Your task to perform on an android device: delete location history Image 0: 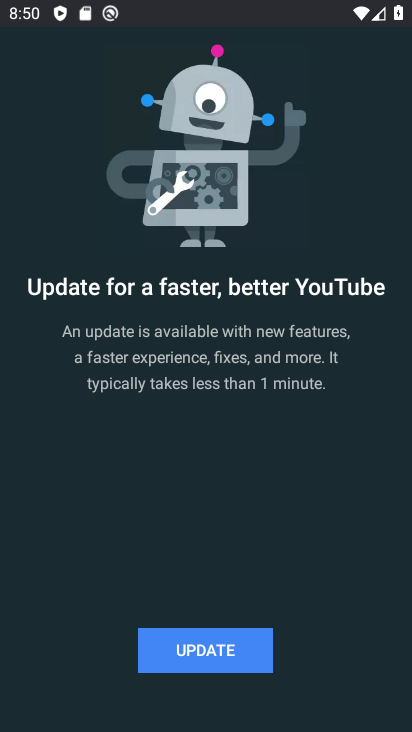
Step 0: press home button
Your task to perform on an android device: delete location history Image 1: 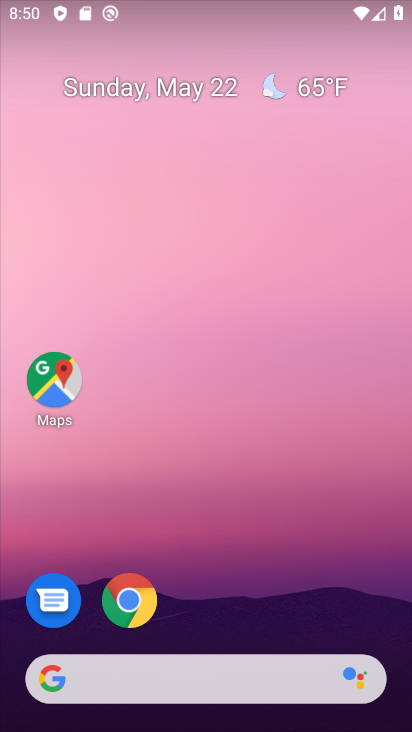
Step 1: drag from (217, 617) to (288, 222)
Your task to perform on an android device: delete location history Image 2: 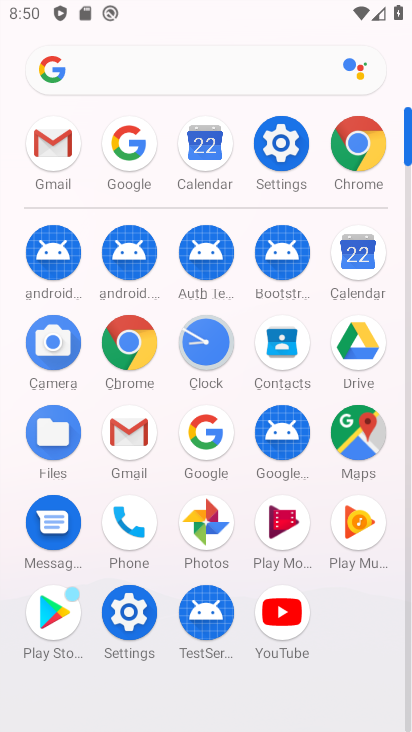
Step 2: click (278, 158)
Your task to perform on an android device: delete location history Image 3: 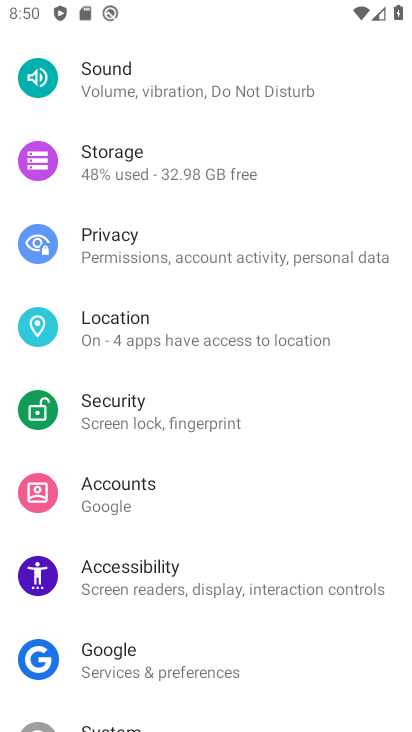
Step 3: click (152, 347)
Your task to perform on an android device: delete location history Image 4: 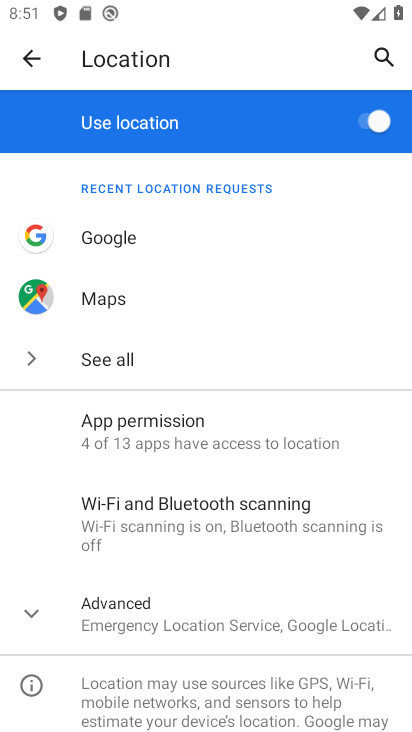
Step 4: drag from (148, 550) to (163, 319)
Your task to perform on an android device: delete location history Image 5: 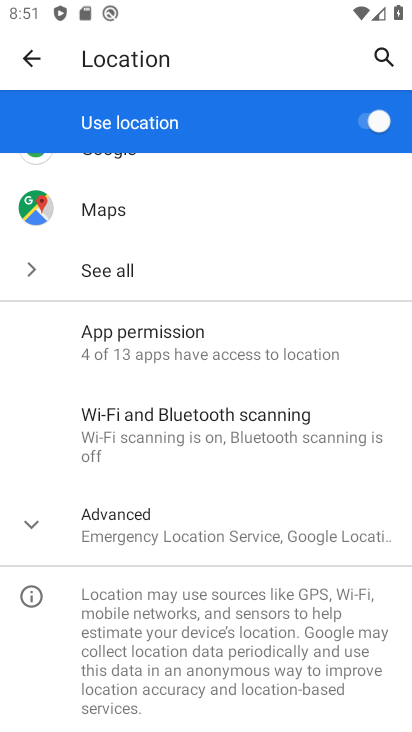
Step 5: click (125, 515)
Your task to perform on an android device: delete location history Image 6: 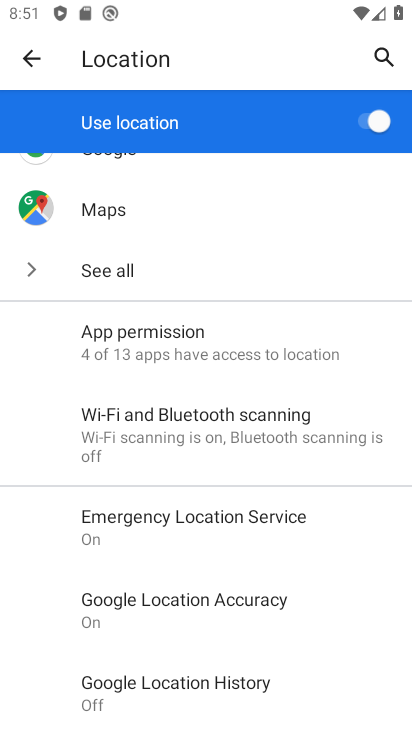
Step 6: click (206, 706)
Your task to perform on an android device: delete location history Image 7: 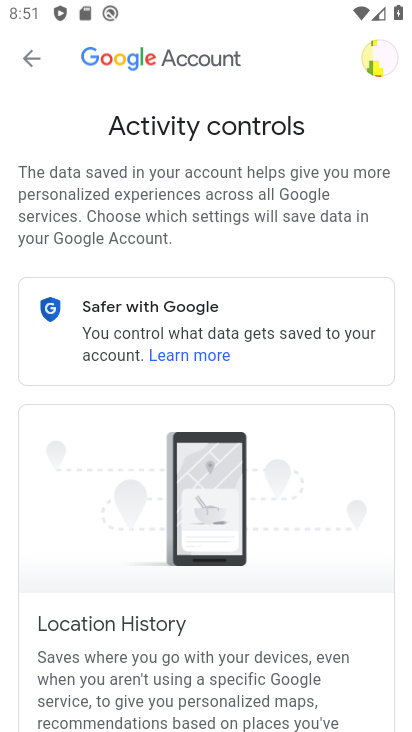
Step 7: drag from (226, 672) to (199, 396)
Your task to perform on an android device: delete location history Image 8: 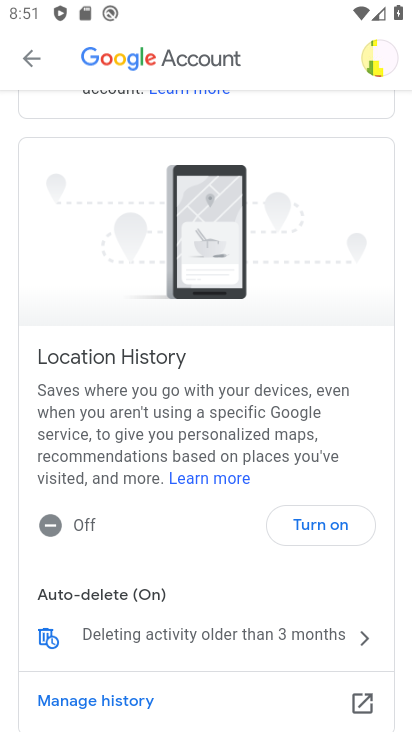
Step 8: drag from (278, 679) to (280, 441)
Your task to perform on an android device: delete location history Image 9: 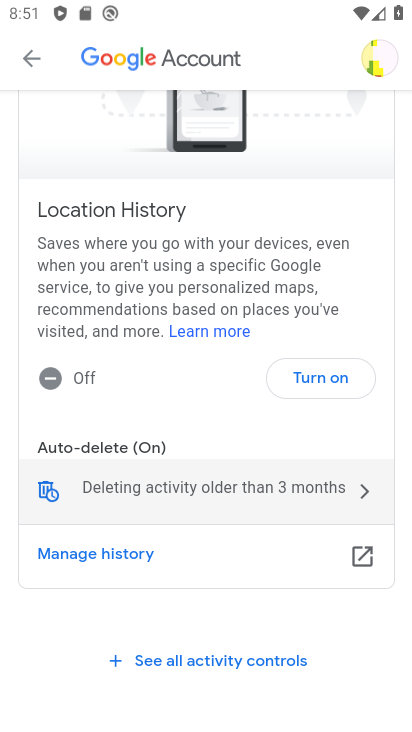
Step 9: click (126, 561)
Your task to perform on an android device: delete location history Image 10: 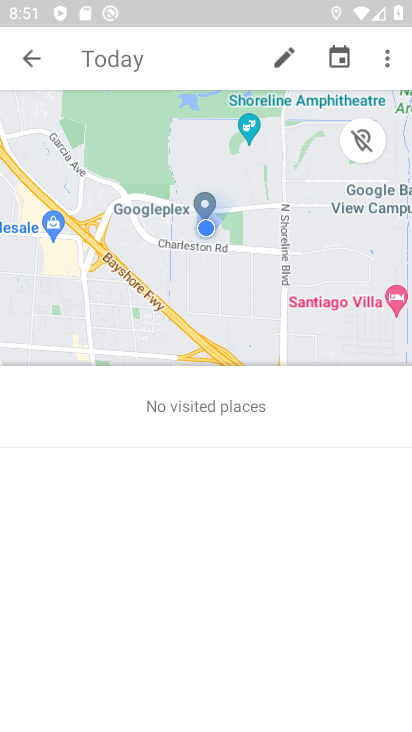
Step 10: click (384, 56)
Your task to perform on an android device: delete location history Image 11: 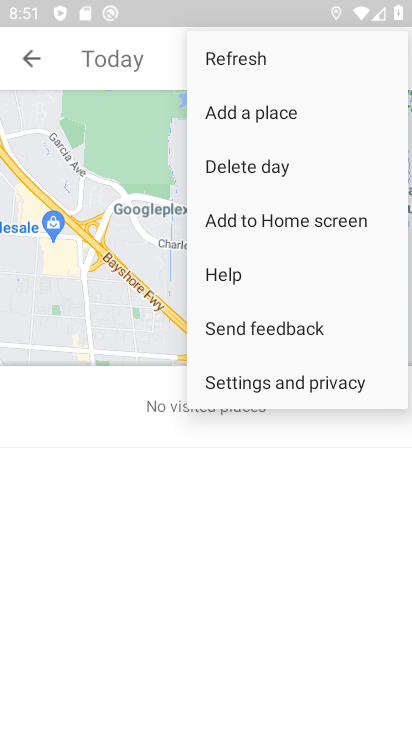
Step 11: click (320, 377)
Your task to perform on an android device: delete location history Image 12: 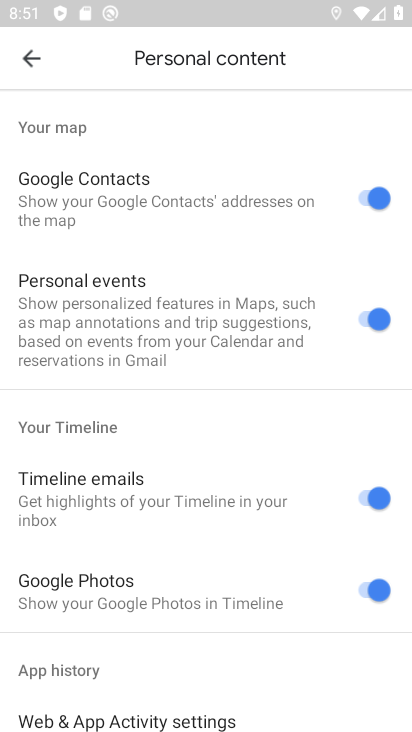
Step 12: drag from (162, 660) to (161, 397)
Your task to perform on an android device: delete location history Image 13: 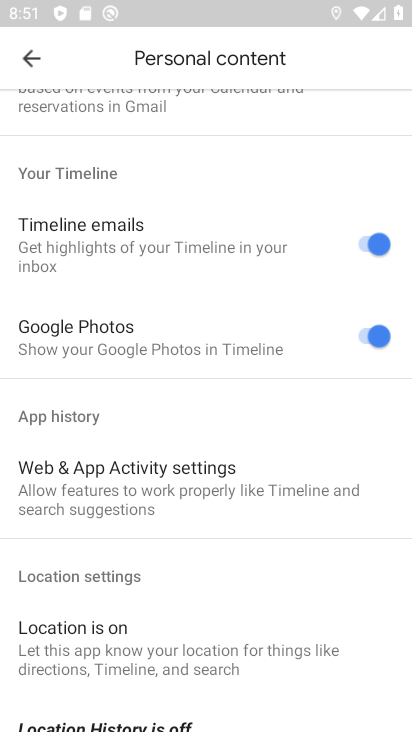
Step 13: drag from (196, 639) to (188, 374)
Your task to perform on an android device: delete location history Image 14: 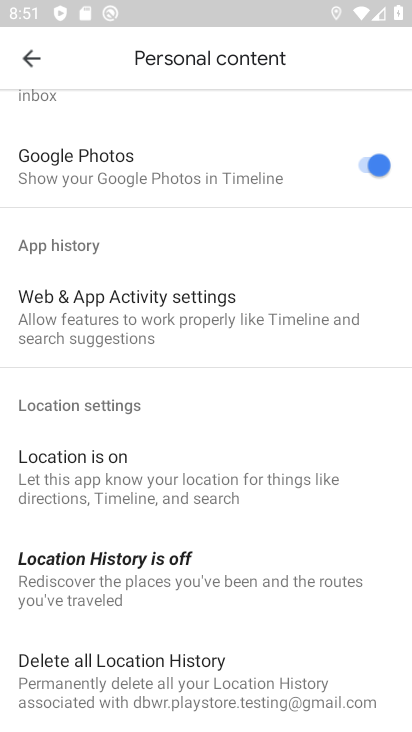
Step 14: click (152, 677)
Your task to perform on an android device: delete location history Image 15: 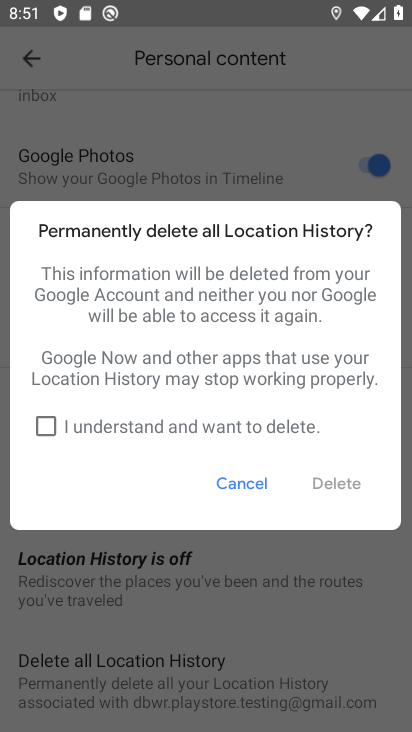
Step 15: click (43, 434)
Your task to perform on an android device: delete location history Image 16: 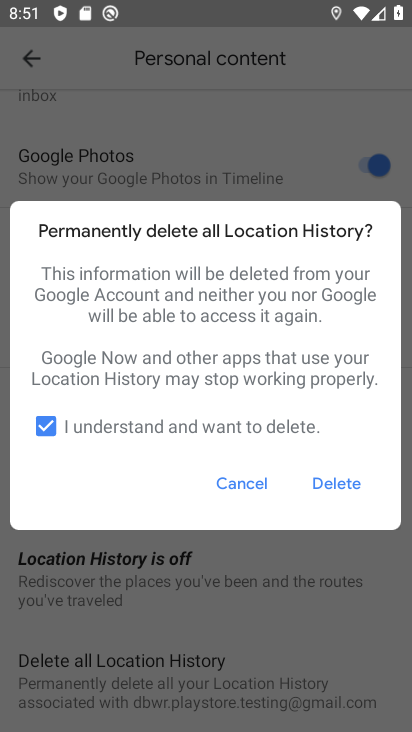
Step 16: click (334, 484)
Your task to perform on an android device: delete location history Image 17: 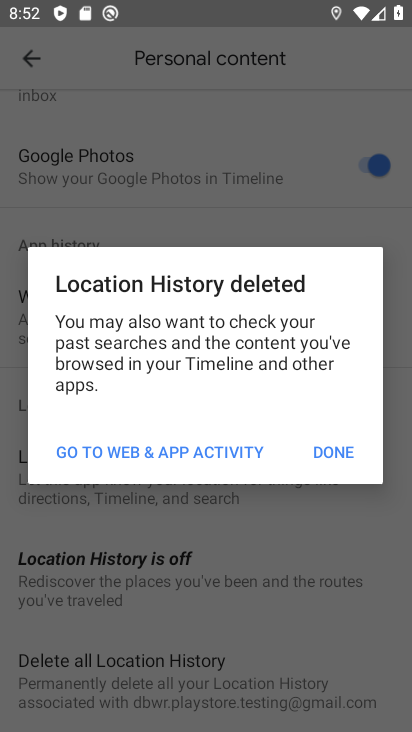
Step 17: click (323, 455)
Your task to perform on an android device: delete location history Image 18: 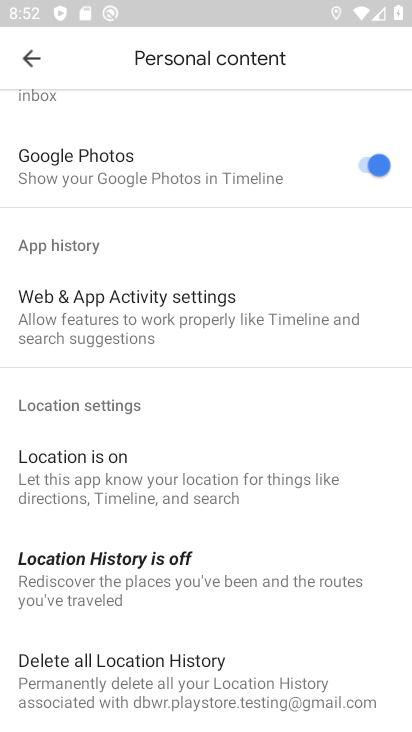
Step 18: task complete